Your task to perform on an android device: turn off wifi Image 0: 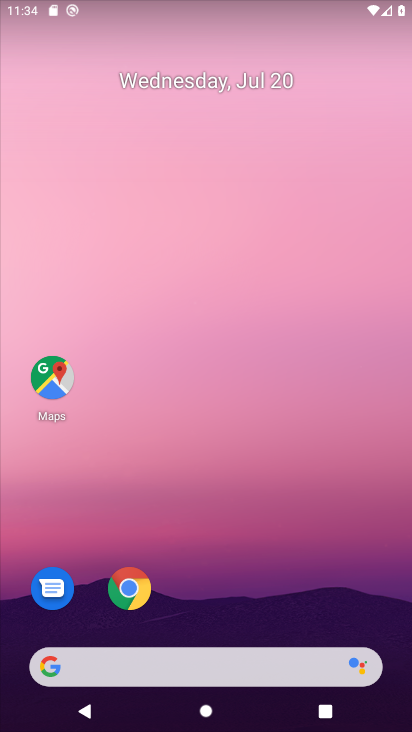
Step 0: drag from (224, 626) to (249, 31)
Your task to perform on an android device: turn off wifi Image 1: 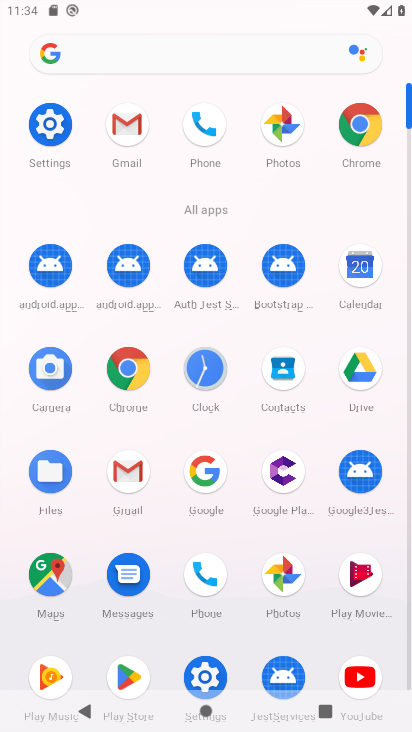
Step 1: click (42, 120)
Your task to perform on an android device: turn off wifi Image 2: 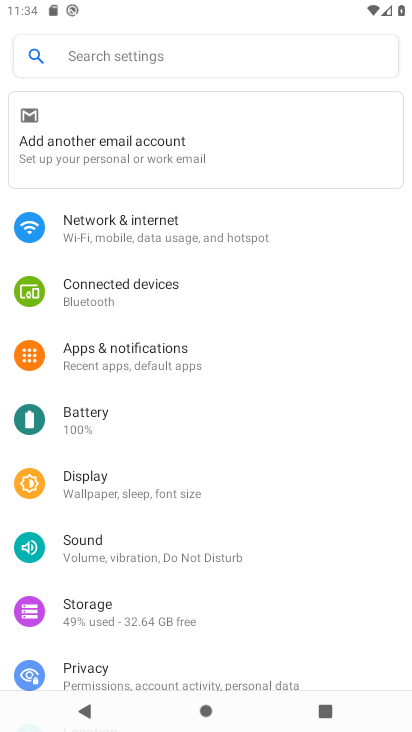
Step 2: click (191, 221)
Your task to perform on an android device: turn off wifi Image 3: 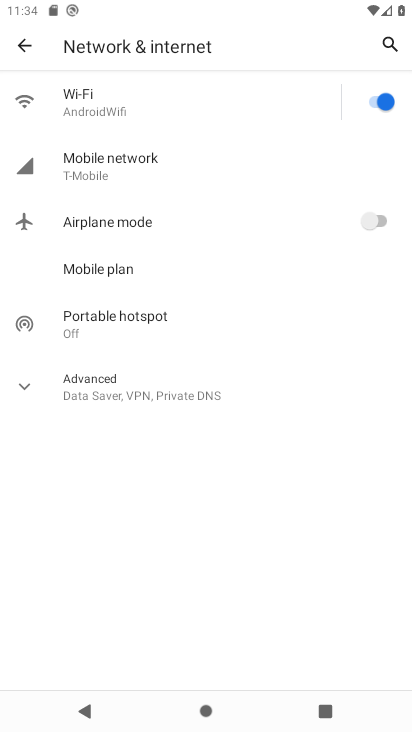
Step 3: click (377, 97)
Your task to perform on an android device: turn off wifi Image 4: 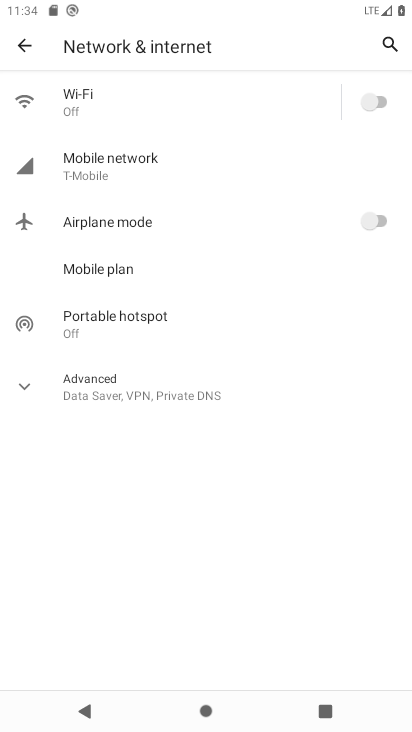
Step 4: task complete